Your task to perform on an android device: Open the calendar app, open the side menu, and click the "Day" option Image 0: 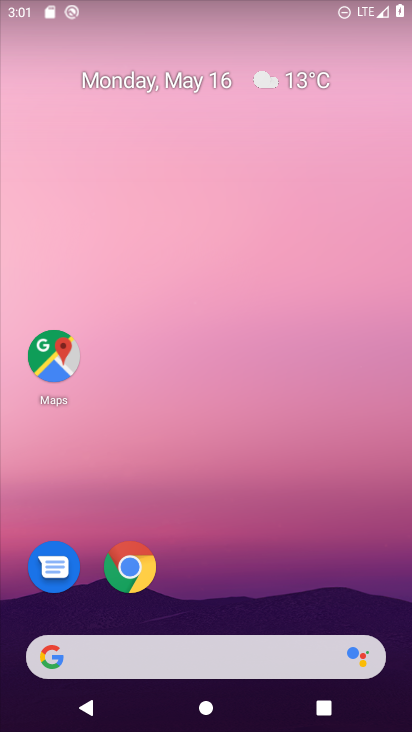
Step 0: drag from (243, 549) to (242, 88)
Your task to perform on an android device: Open the calendar app, open the side menu, and click the "Day" option Image 1: 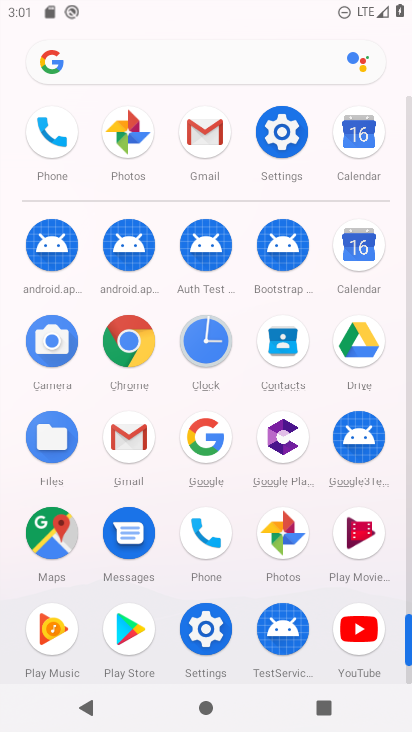
Step 1: click (366, 236)
Your task to perform on an android device: Open the calendar app, open the side menu, and click the "Day" option Image 2: 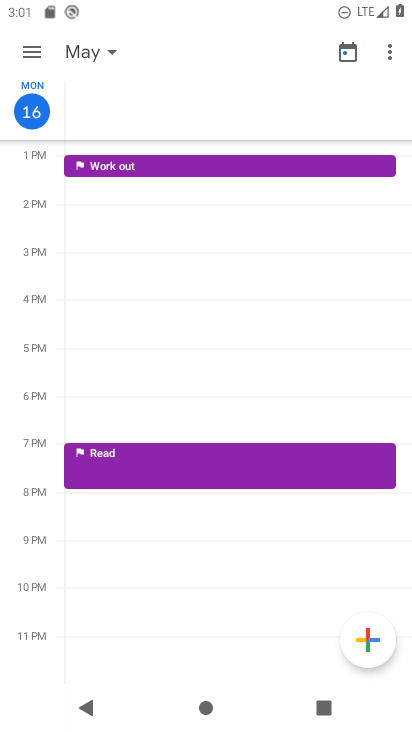
Step 2: click (30, 45)
Your task to perform on an android device: Open the calendar app, open the side menu, and click the "Day" option Image 3: 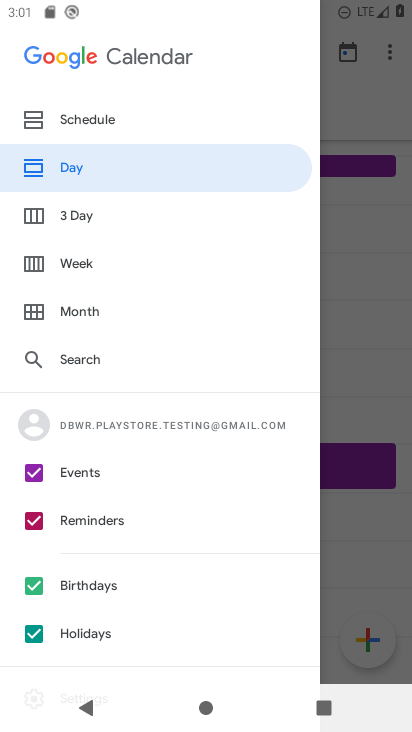
Step 3: click (96, 170)
Your task to perform on an android device: Open the calendar app, open the side menu, and click the "Day" option Image 4: 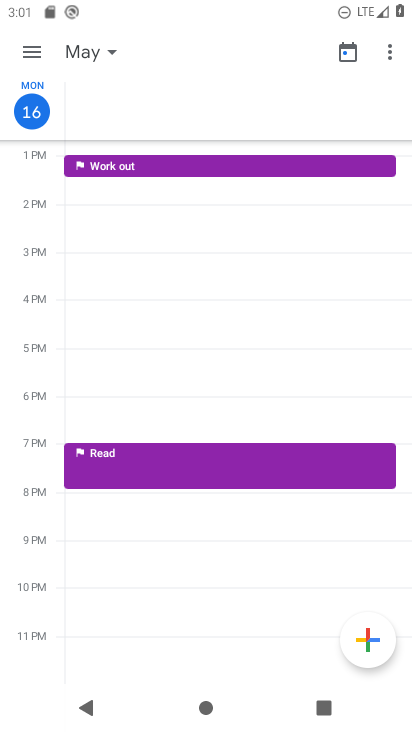
Step 4: task complete